Your task to perform on an android device: uninstall "Adobe Acrobat Reader" Image 0: 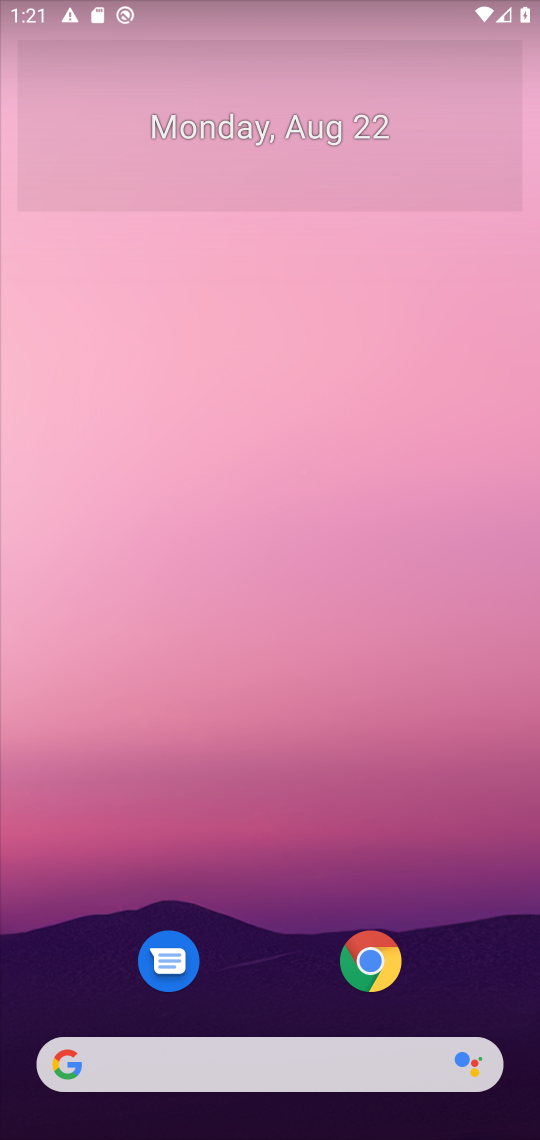
Step 0: drag from (485, 952) to (492, 89)
Your task to perform on an android device: uninstall "Adobe Acrobat Reader" Image 1: 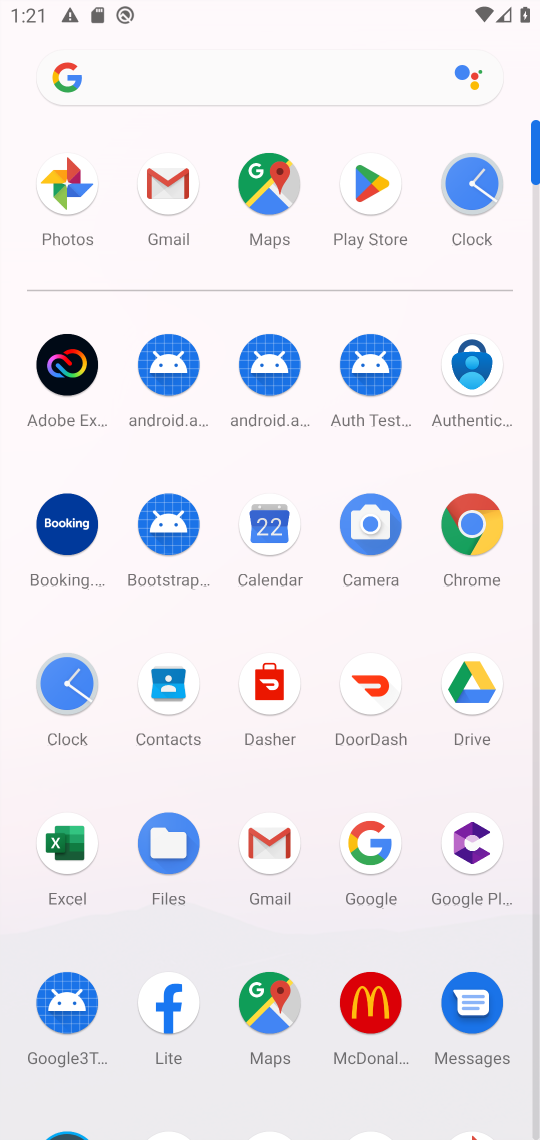
Step 1: click (370, 187)
Your task to perform on an android device: uninstall "Adobe Acrobat Reader" Image 2: 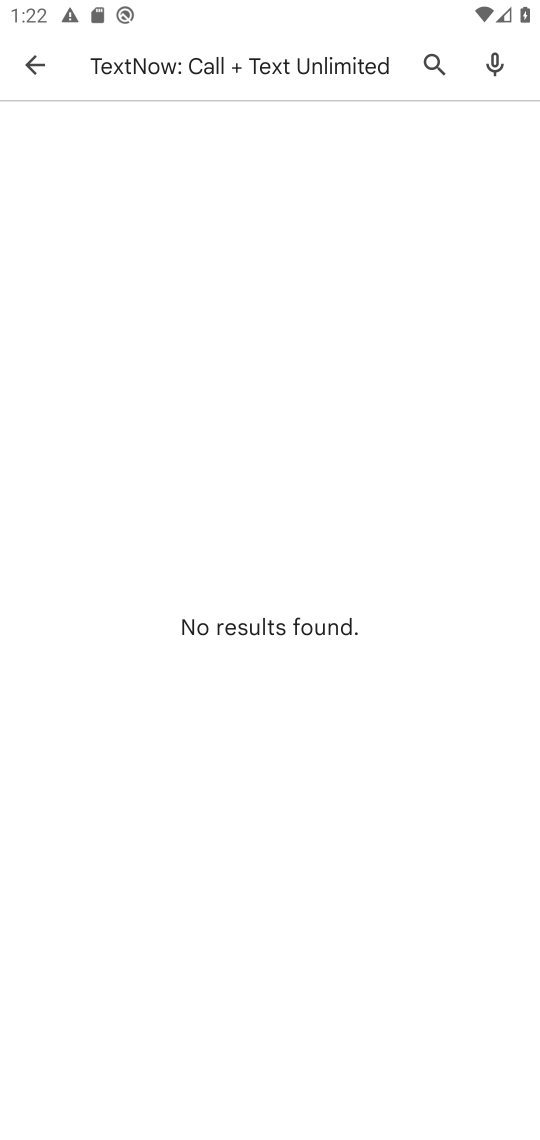
Step 2: press back button
Your task to perform on an android device: uninstall "Adobe Acrobat Reader" Image 3: 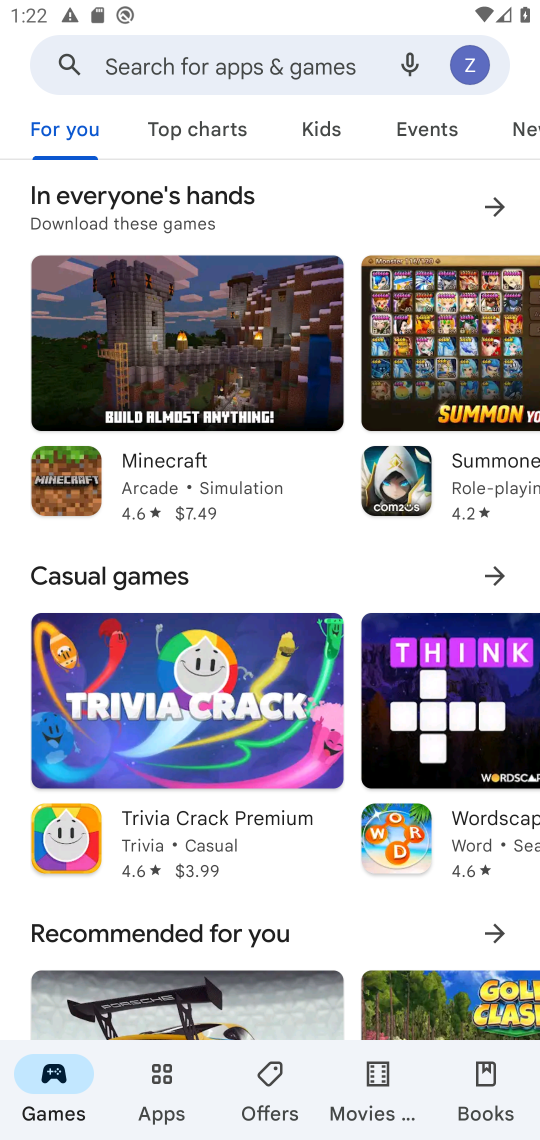
Step 3: click (308, 57)
Your task to perform on an android device: uninstall "Adobe Acrobat Reader" Image 4: 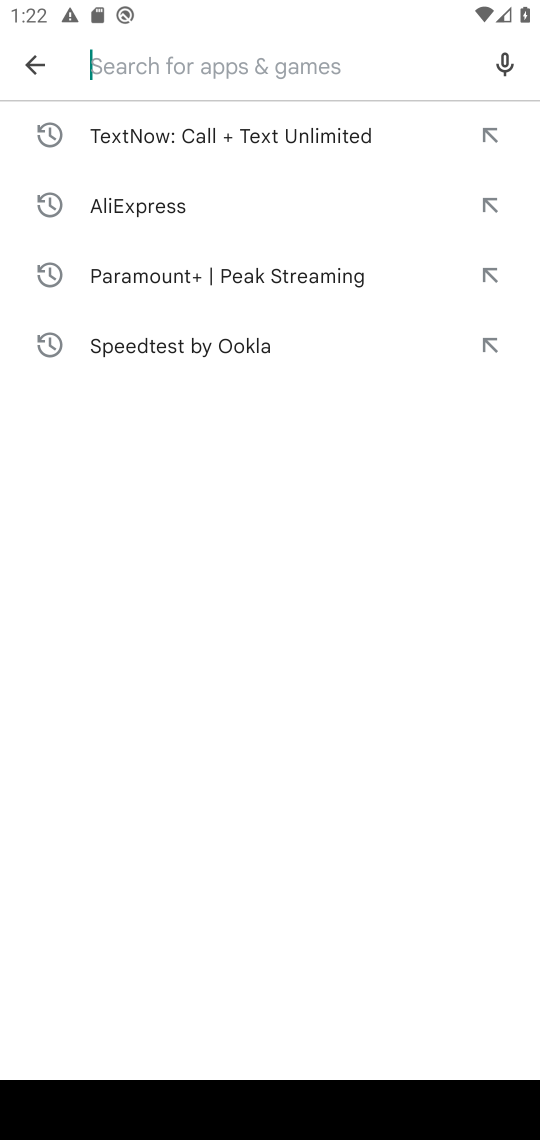
Step 4: type "Adobe Acrobat Reader"
Your task to perform on an android device: uninstall "Adobe Acrobat Reader" Image 5: 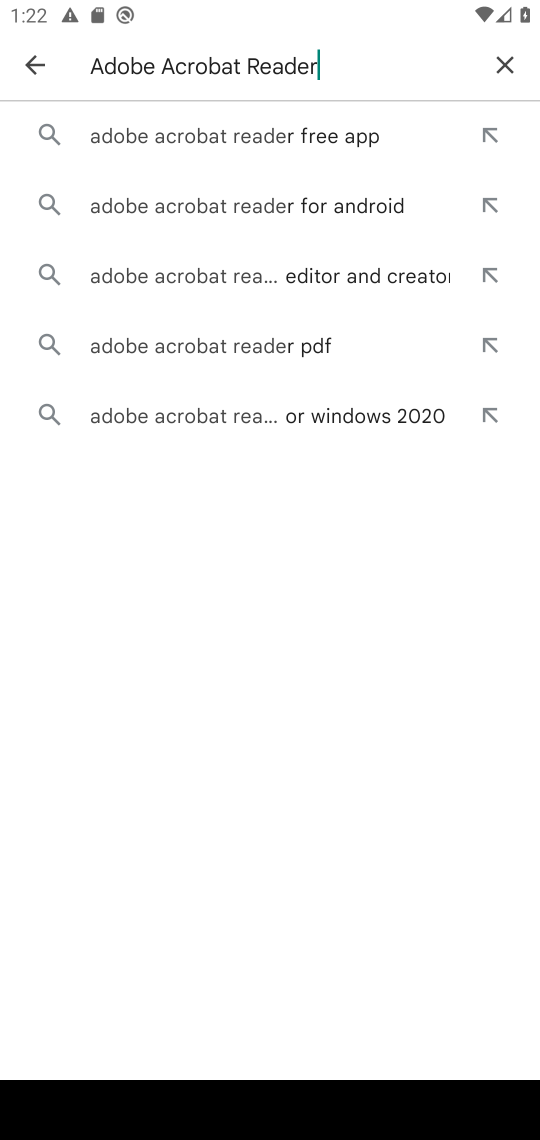
Step 5: press enter
Your task to perform on an android device: uninstall "Adobe Acrobat Reader" Image 6: 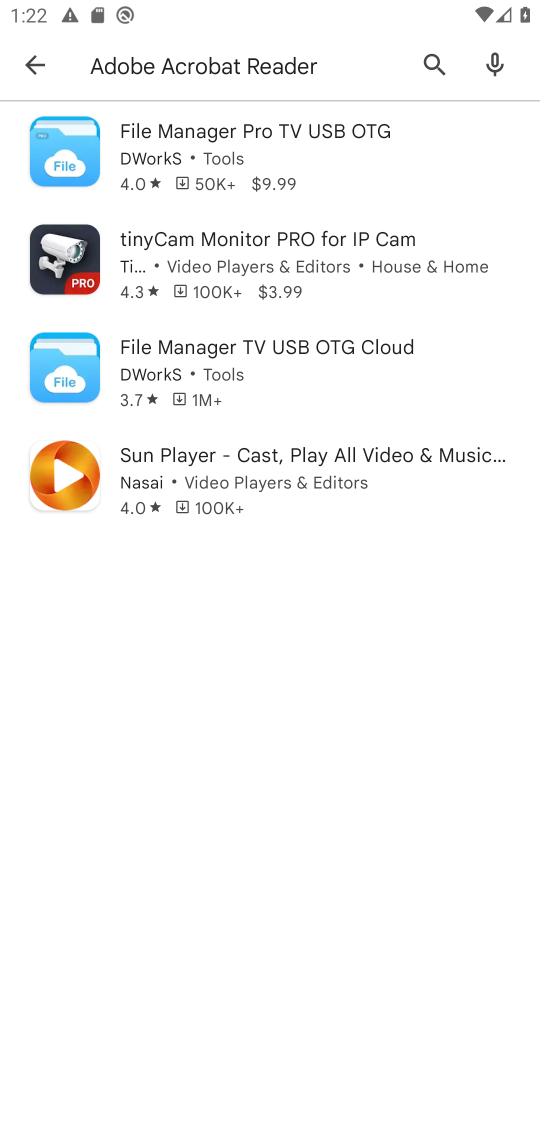
Step 6: task complete